Your task to perform on an android device: Open my contact list Image 0: 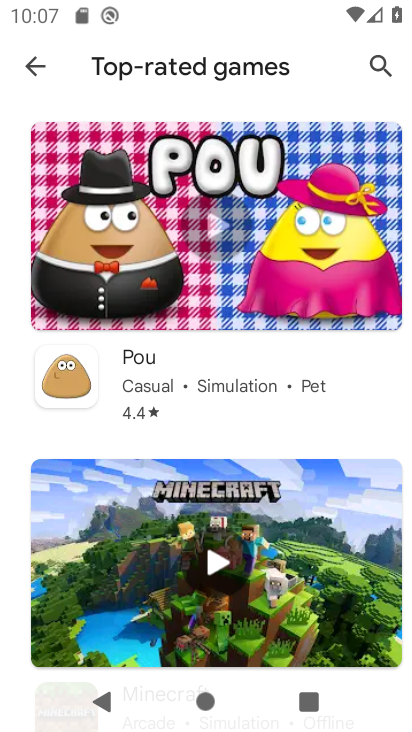
Step 0: press home button
Your task to perform on an android device: Open my contact list Image 1: 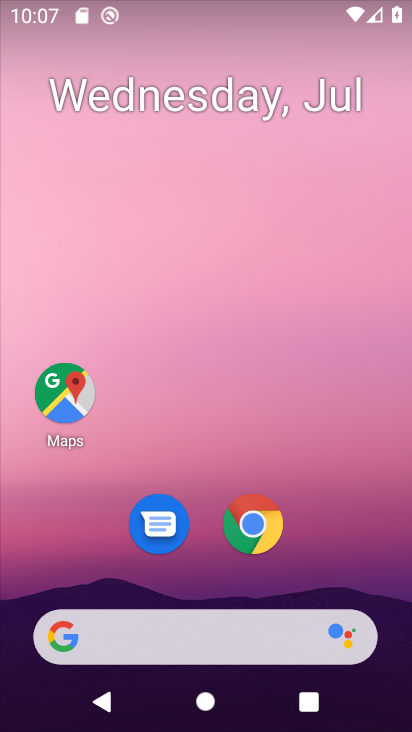
Step 1: drag from (333, 530) to (316, 39)
Your task to perform on an android device: Open my contact list Image 2: 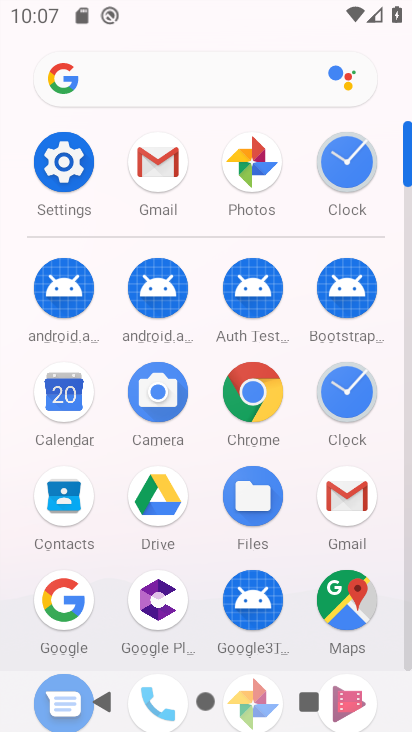
Step 2: click (73, 493)
Your task to perform on an android device: Open my contact list Image 3: 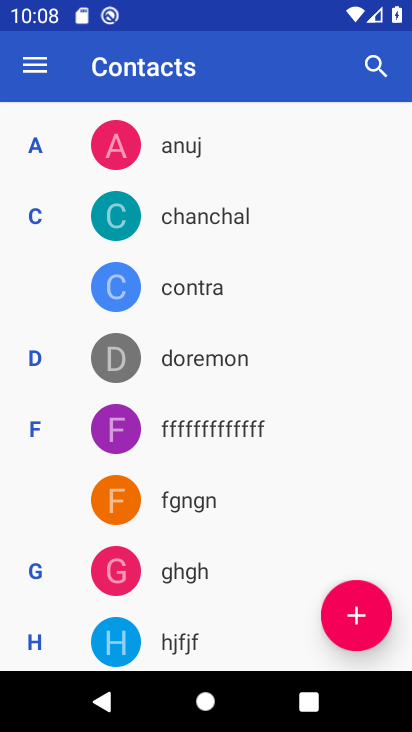
Step 3: task complete